Your task to perform on an android device: see sites visited before in the chrome app Image 0: 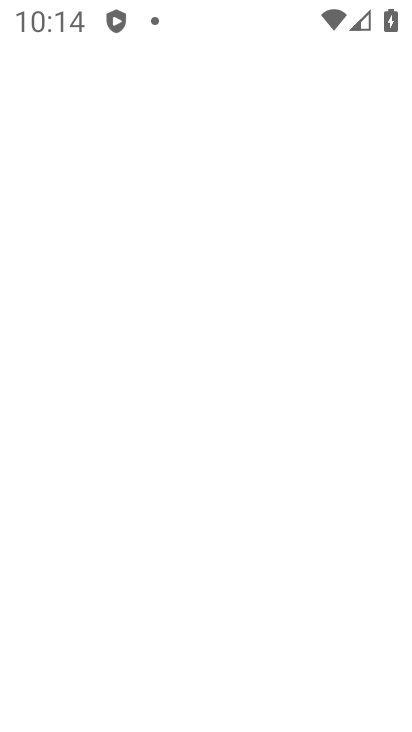
Step 0: press home button
Your task to perform on an android device: see sites visited before in the chrome app Image 1: 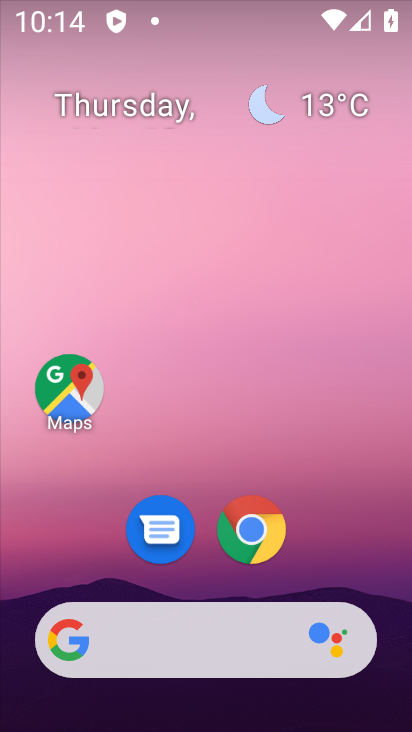
Step 1: click (243, 530)
Your task to perform on an android device: see sites visited before in the chrome app Image 2: 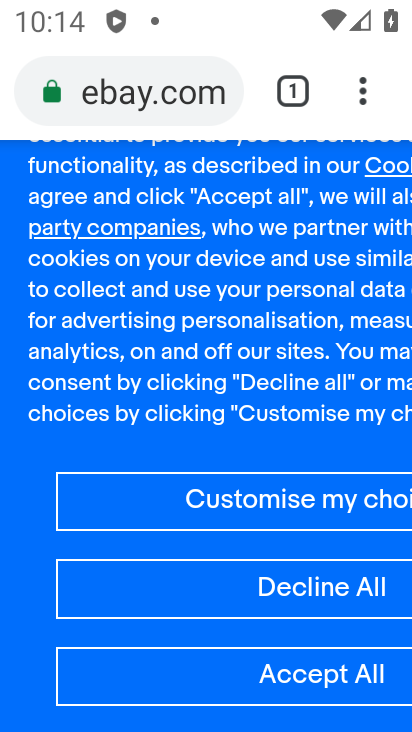
Step 2: click (357, 81)
Your task to perform on an android device: see sites visited before in the chrome app Image 3: 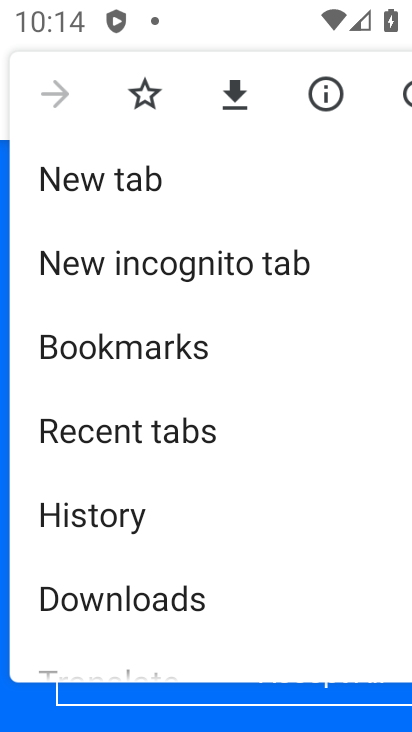
Step 3: click (114, 530)
Your task to perform on an android device: see sites visited before in the chrome app Image 4: 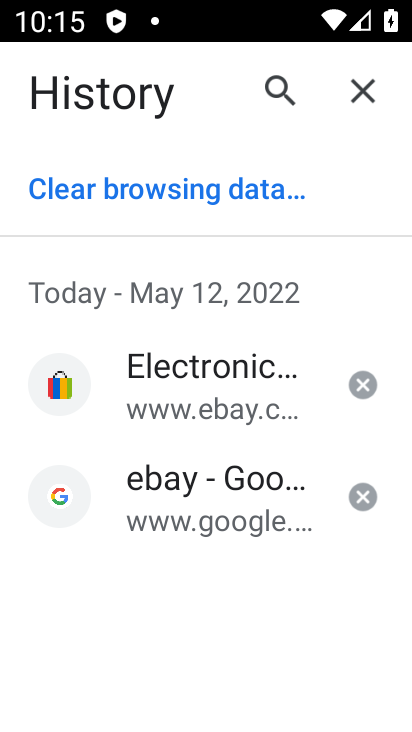
Step 4: task complete